Your task to perform on an android device: Open the calendar app, open the side menu, and click the "Day" option Image 0: 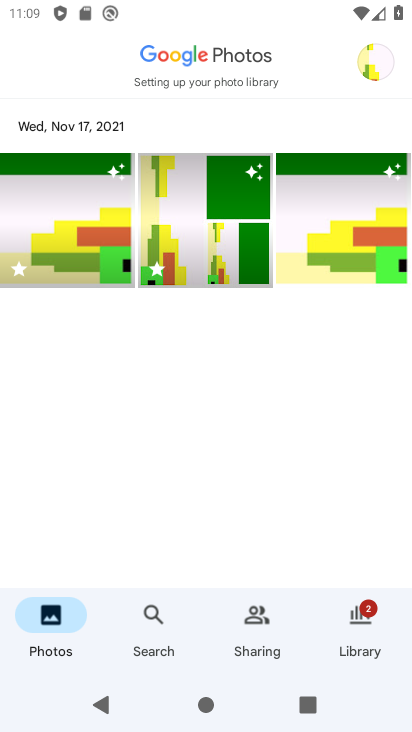
Step 0: press home button
Your task to perform on an android device: Open the calendar app, open the side menu, and click the "Day" option Image 1: 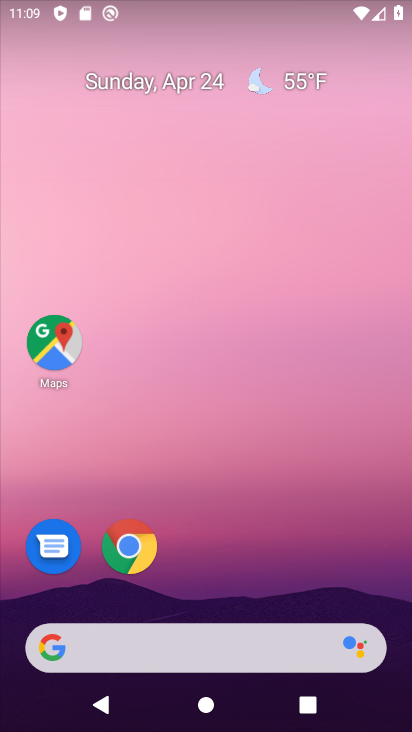
Step 1: drag from (236, 548) to (282, 38)
Your task to perform on an android device: Open the calendar app, open the side menu, and click the "Day" option Image 2: 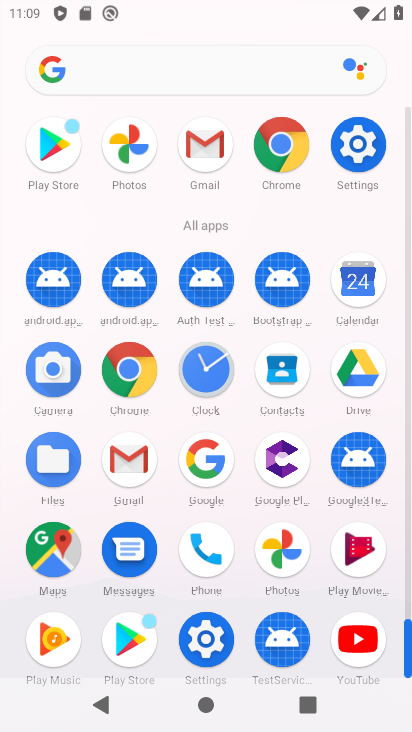
Step 2: click (356, 280)
Your task to perform on an android device: Open the calendar app, open the side menu, and click the "Day" option Image 3: 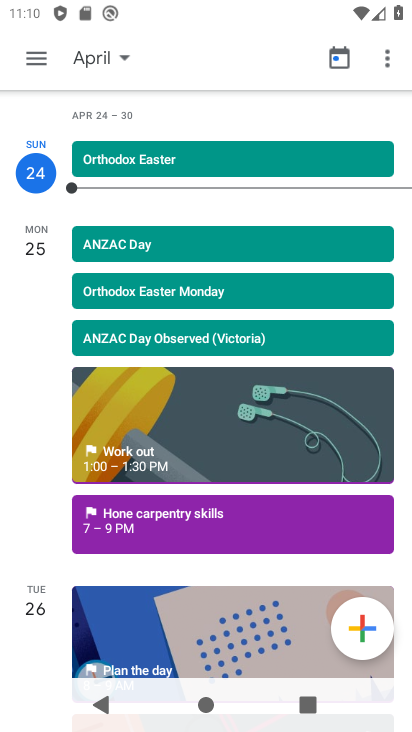
Step 3: click (39, 57)
Your task to perform on an android device: Open the calendar app, open the side menu, and click the "Day" option Image 4: 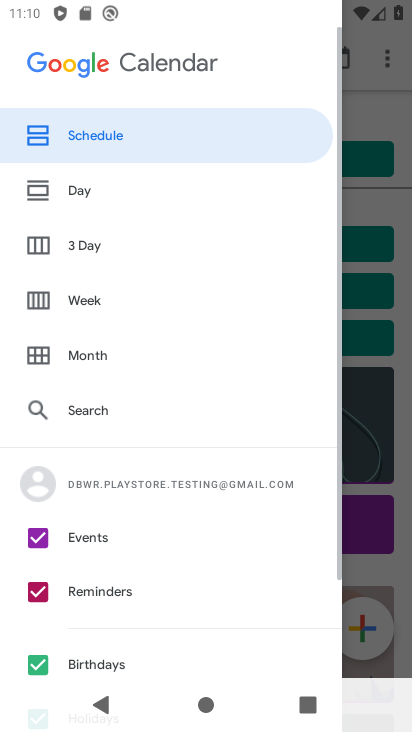
Step 4: click (82, 185)
Your task to perform on an android device: Open the calendar app, open the side menu, and click the "Day" option Image 5: 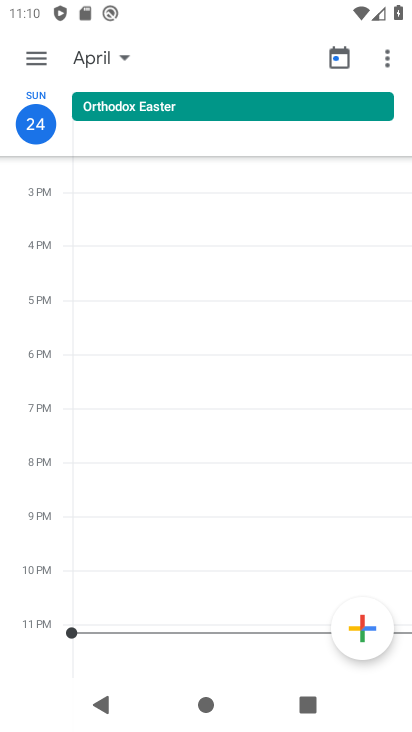
Step 5: task complete